Your task to perform on an android device: open a bookmark in the chrome app Image 0: 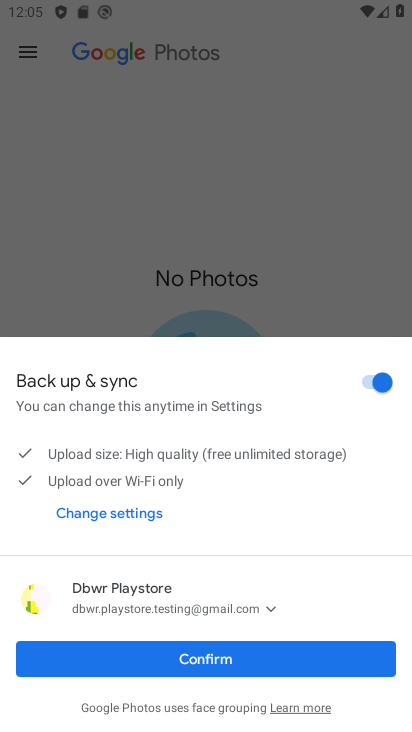
Step 0: press home button
Your task to perform on an android device: open a bookmark in the chrome app Image 1: 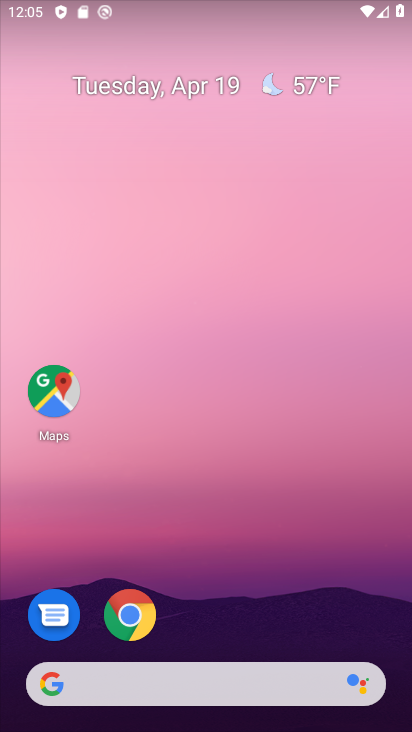
Step 1: click (120, 599)
Your task to perform on an android device: open a bookmark in the chrome app Image 2: 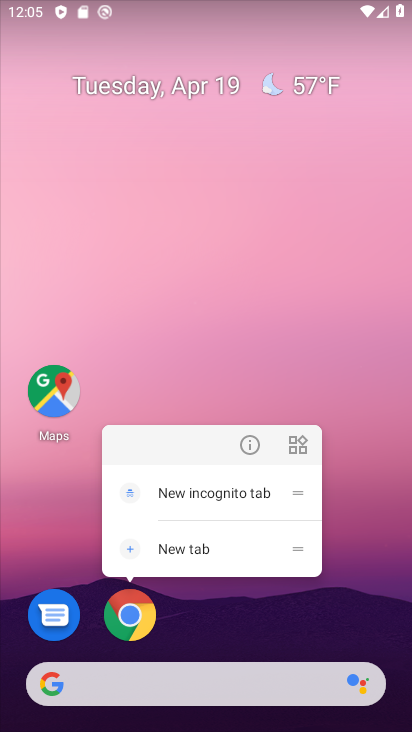
Step 2: click (133, 605)
Your task to perform on an android device: open a bookmark in the chrome app Image 3: 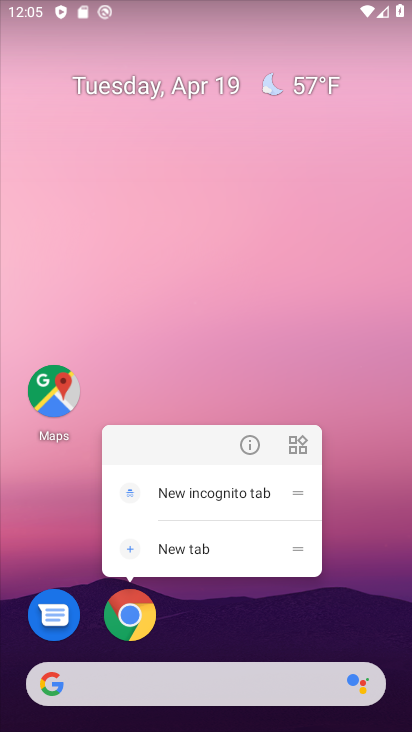
Step 3: click (137, 611)
Your task to perform on an android device: open a bookmark in the chrome app Image 4: 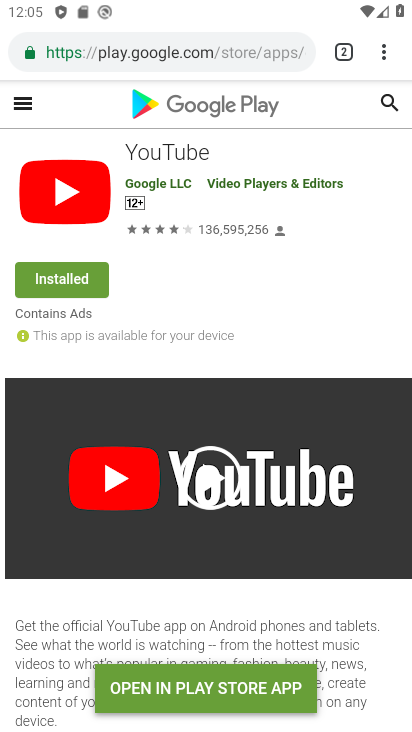
Step 4: click (380, 51)
Your task to perform on an android device: open a bookmark in the chrome app Image 5: 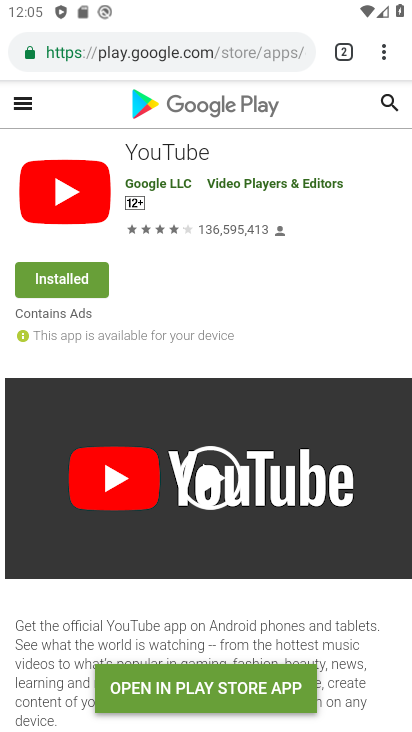
Step 5: task complete